Your task to perform on an android device: check the backup settings in the google photos Image 0: 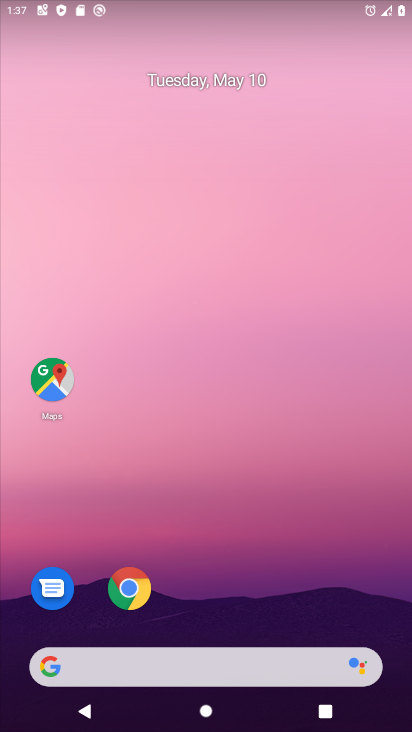
Step 0: drag from (260, 604) to (293, 349)
Your task to perform on an android device: check the backup settings in the google photos Image 1: 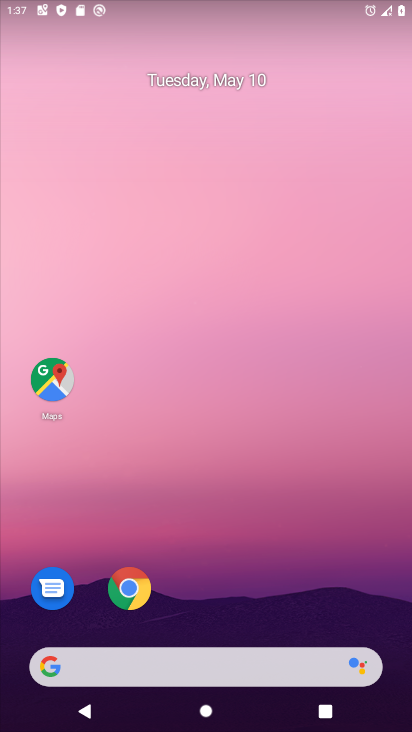
Step 1: drag from (233, 605) to (263, 181)
Your task to perform on an android device: check the backup settings in the google photos Image 2: 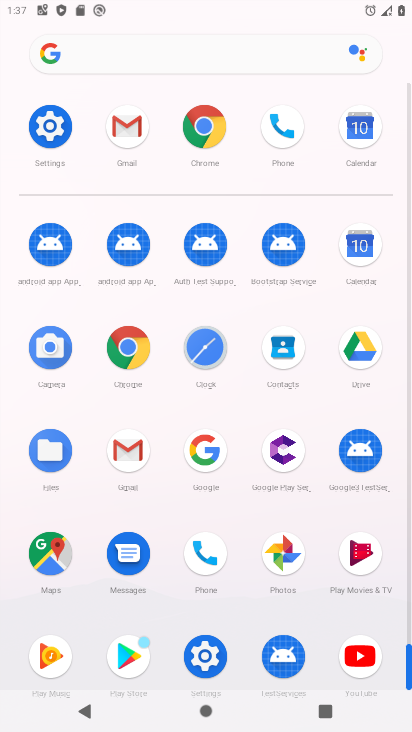
Step 2: click (280, 554)
Your task to perform on an android device: check the backup settings in the google photos Image 3: 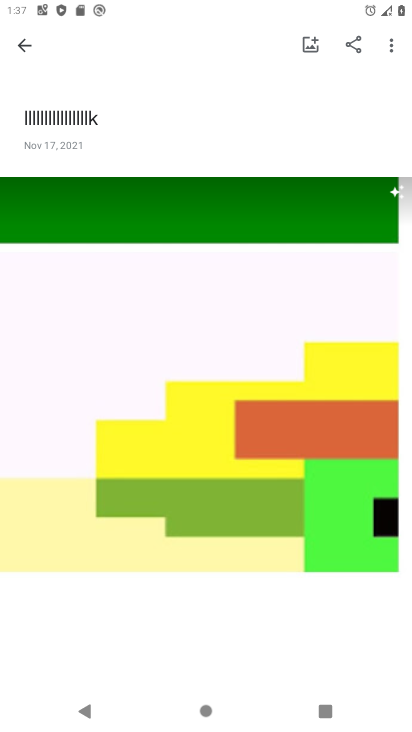
Step 3: click (26, 47)
Your task to perform on an android device: check the backup settings in the google photos Image 4: 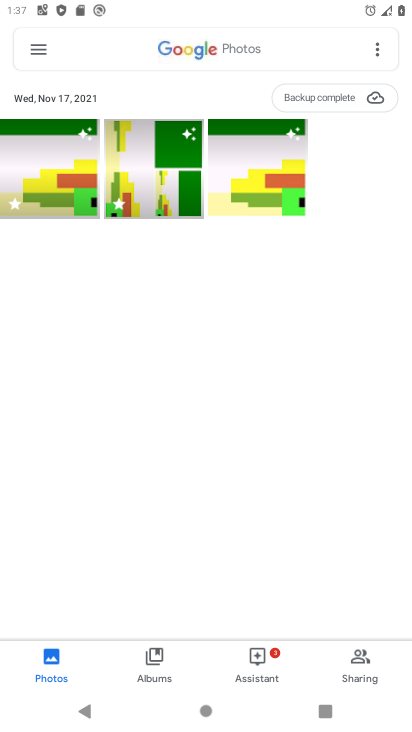
Step 4: click (38, 48)
Your task to perform on an android device: check the backup settings in the google photos Image 5: 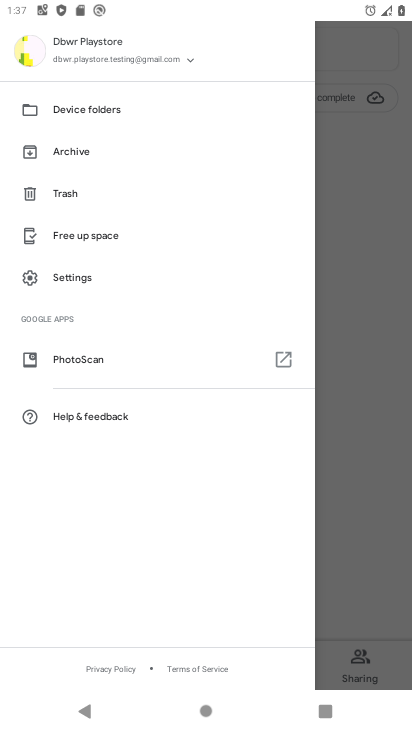
Step 5: click (91, 267)
Your task to perform on an android device: check the backup settings in the google photos Image 6: 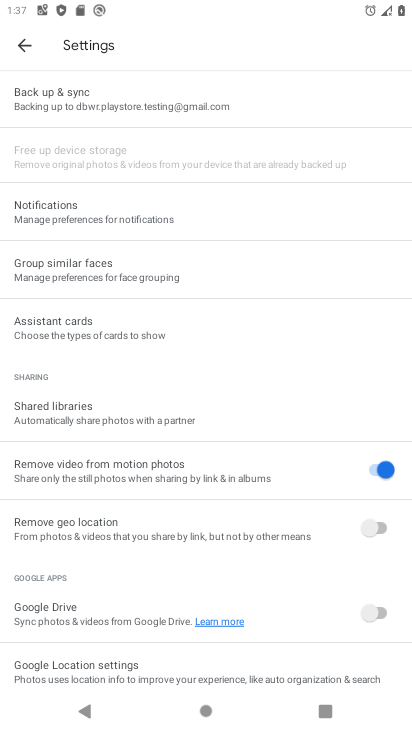
Step 6: click (116, 99)
Your task to perform on an android device: check the backup settings in the google photos Image 7: 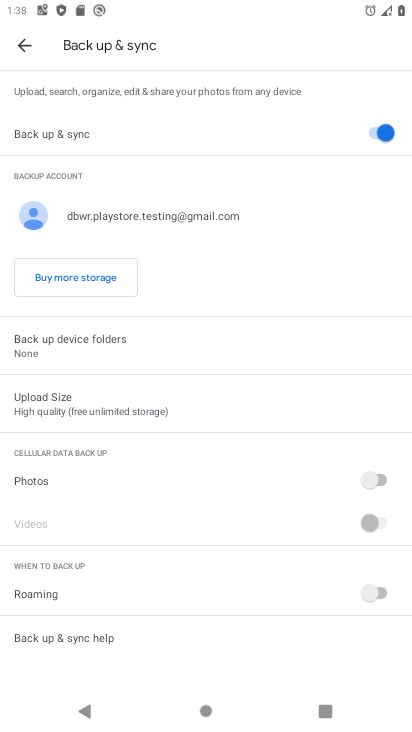
Step 7: task complete